Your task to perform on an android device: toggle pop-ups in chrome Image 0: 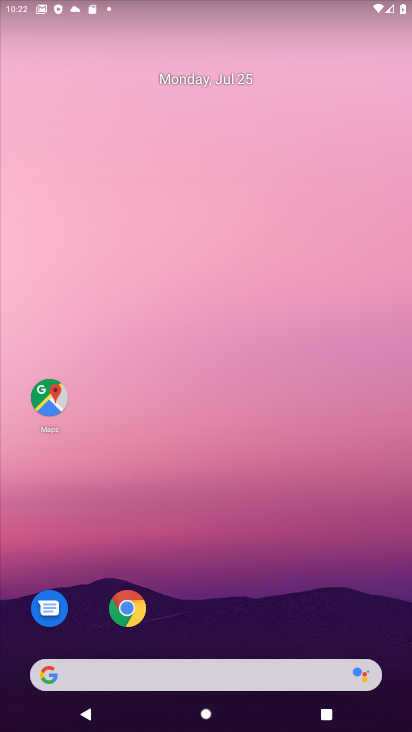
Step 0: click (149, 606)
Your task to perform on an android device: toggle pop-ups in chrome Image 1: 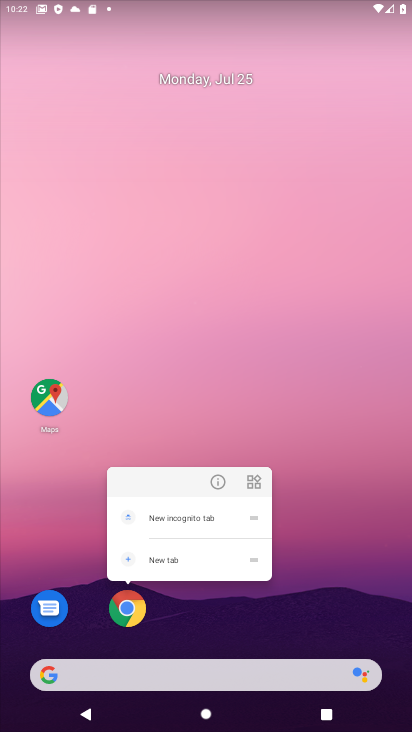
Step 1: click (141, 605)
Your task to perform on an android device: toggle pop-ups in chrome Image 2: 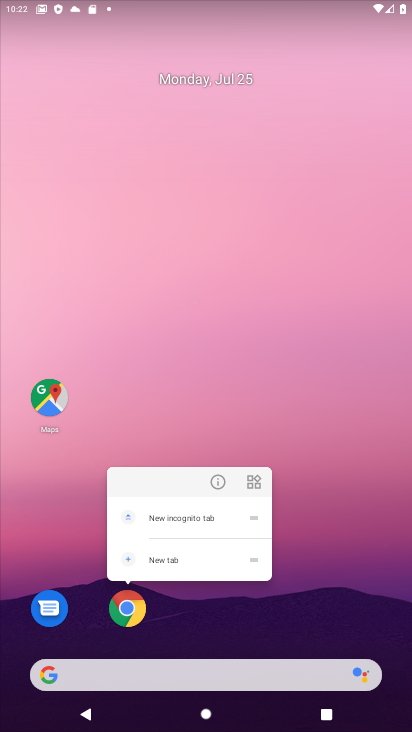
Step 2: click (132, 607)
Your task to perform on an android device: toggle pop-ups in chrome Image 3: 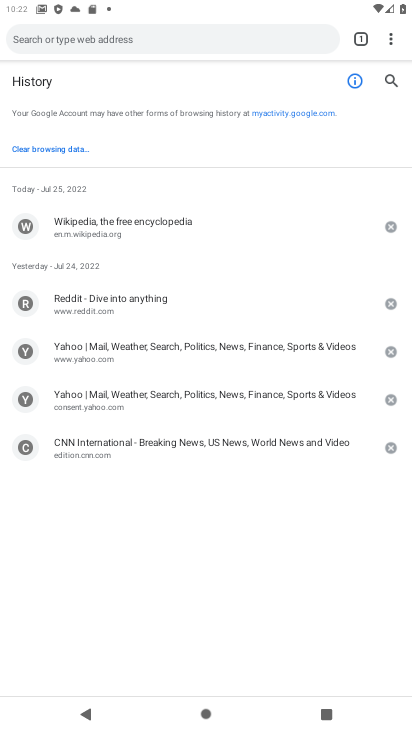
Step 3: click (393, 41)
Your task to perform on an android device: toggle pop-ups in chrome Image 4: 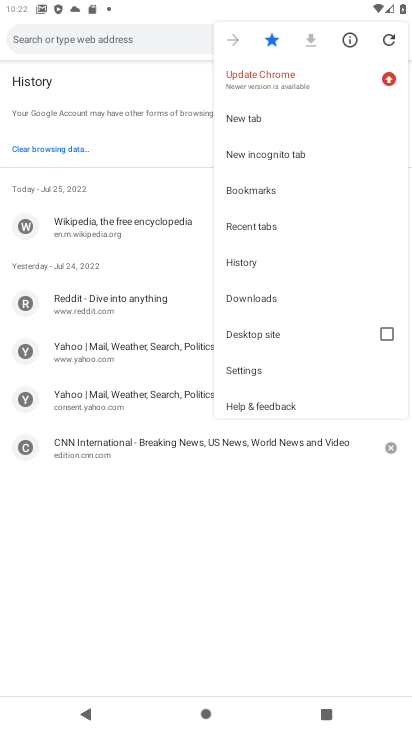
Step 4: click (258, 369)
Your task to perform on an android device: toggle pop-ups in chrome Image 5: 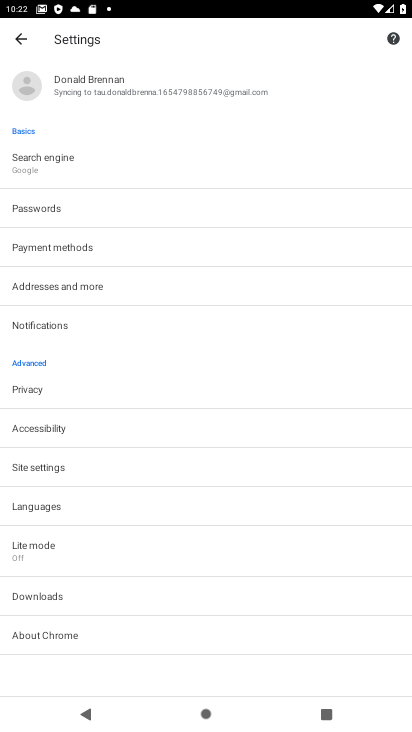
Step 5: click (62, 463)
Your task to perform on an android device: toggle pop-ups in chrome Image 6: 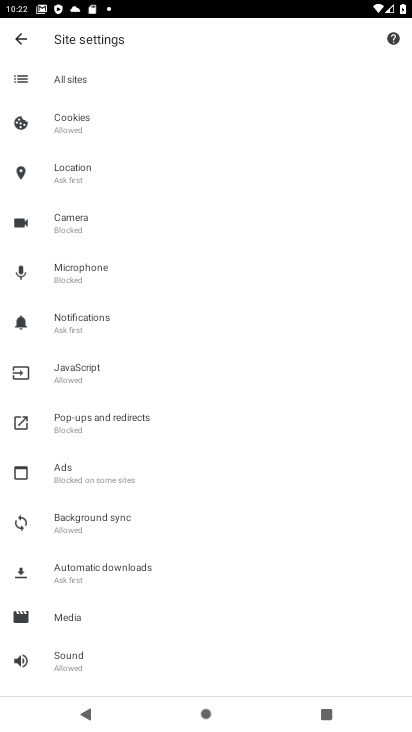
Step 6: click (101, 416)
Your task to perform on an android device: toggle pop-ups in chrome Image 7: 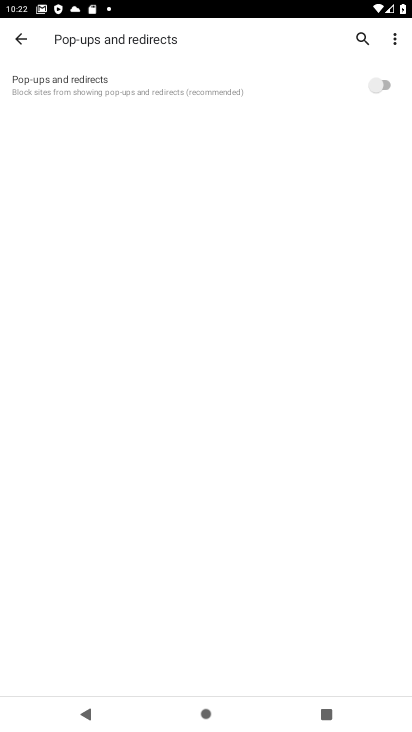
Step 7: click (337, 87)
Your task to perform on an android device: toggle pop-ups in chrome Image 8: 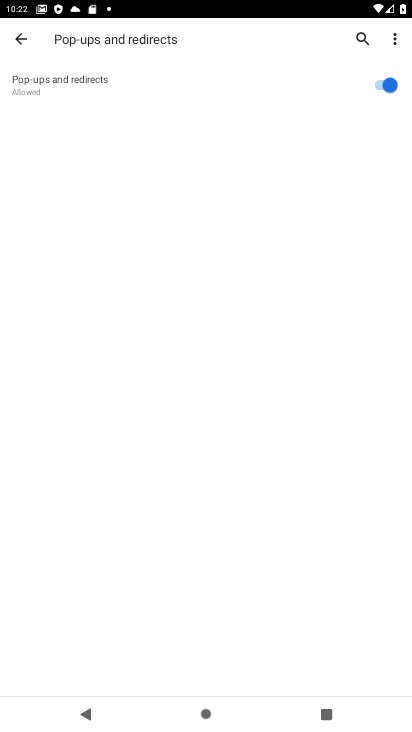
Step 8: task complete